Your task to perform on an android device: read, delete, or share a saved page in the chrome app Image 0: 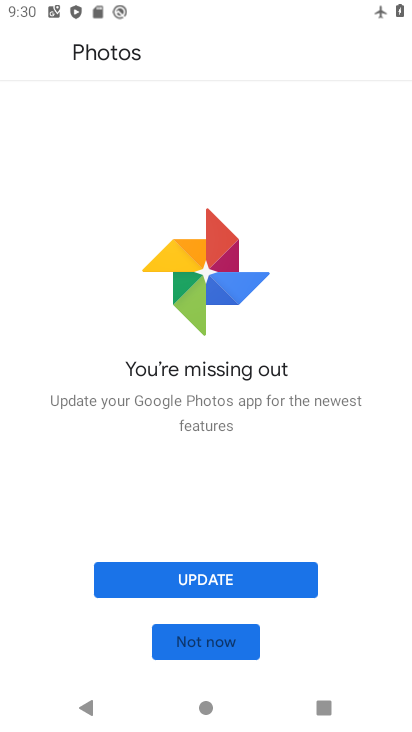
Step 0: press home button
Your task to perform on an android device: read, delete, or share a saved page in the chrome app Image 1: 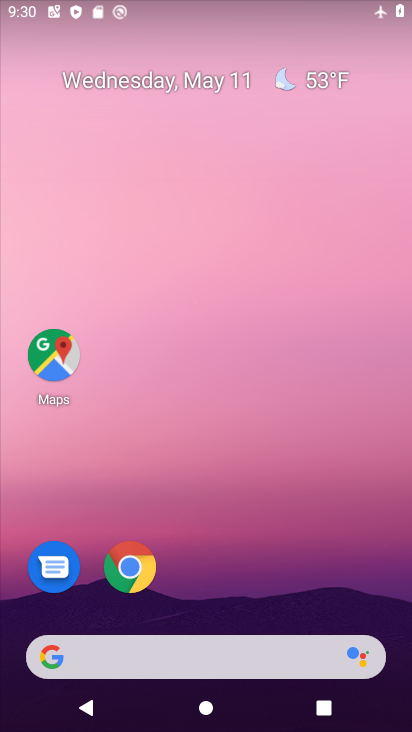
Step 1: click (126, 556)
Your task to perform on an android device: read, delete, or share a saved page in the chrome app Image 2: 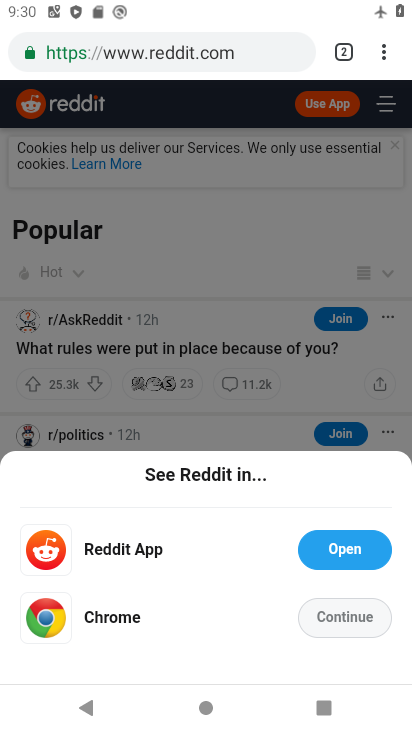
Step 2: click (377, 53)
Your task to perform on an android device: read, delete, or share a saved page in the chrome app Image 3: 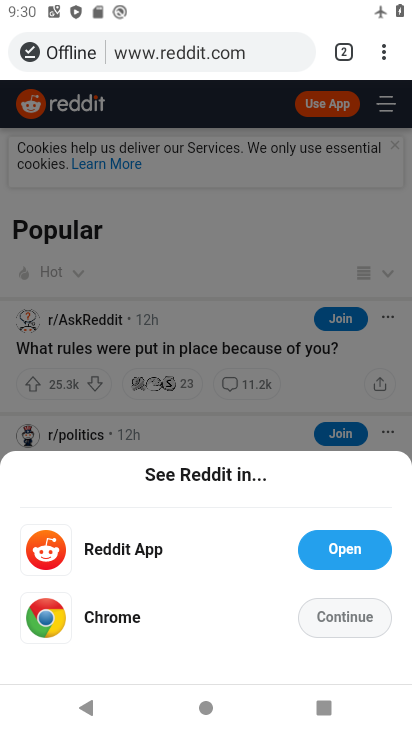
Step 3: click (384, 56)
Your task to perform on an android device: read, delete, or share a saved page in the chrome app Image 4: 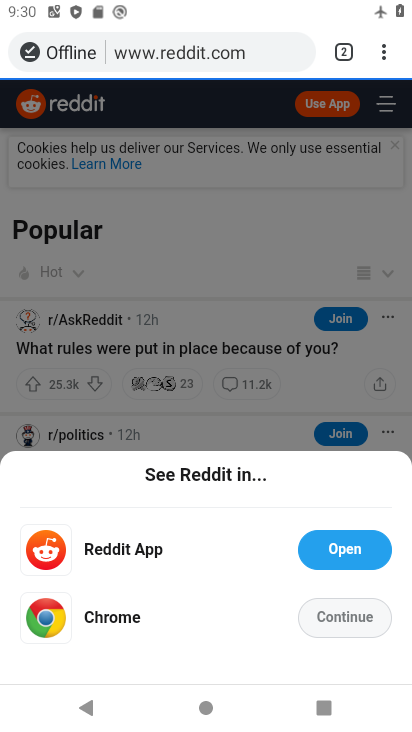
Step 4: click (384, 56)
Your task to perform on an android device: read, delete, or share a saved page in the chrome app Image 5: 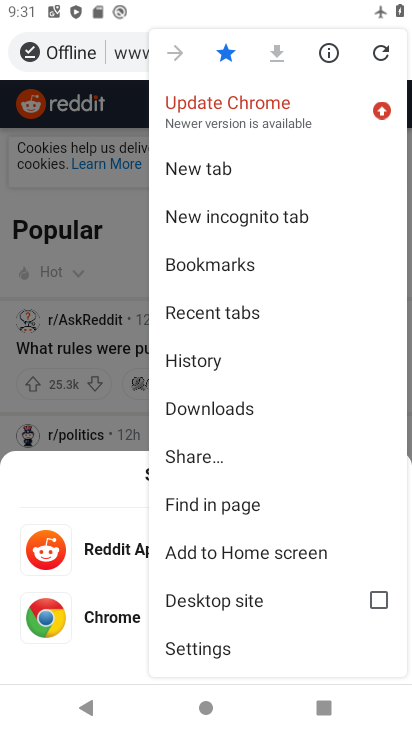
Step 5: click (231, 400)
Your task to perform on an android device: read, delete, or share a saved page in the chrome app Image 6: 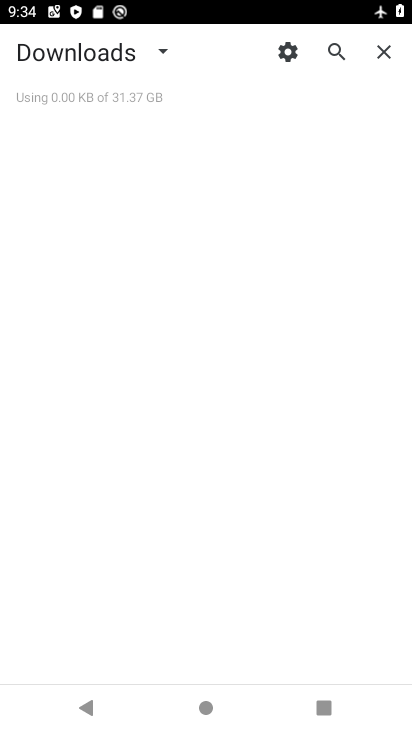
Step 6: task complete